Your task to perform on an android device: move a message to another label in the gmail app Image 0: 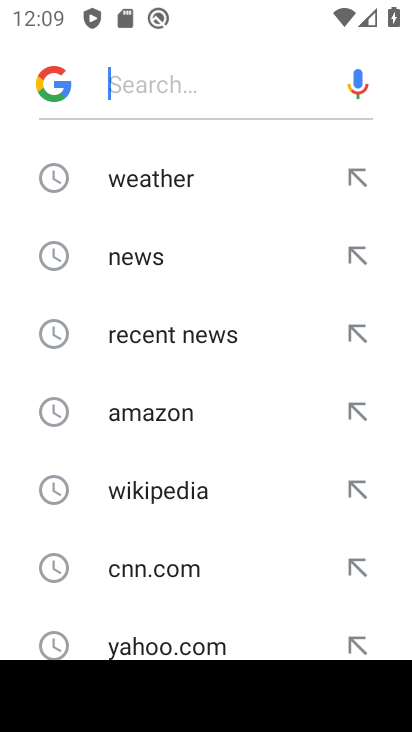
Step 0: press home button
Your task to perform on an android device: move a message to another label in the gmail app Image 1: 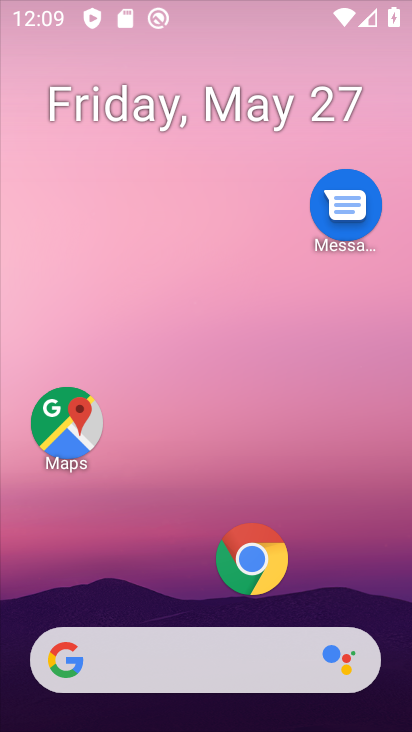
Step 1: drag from (49, 588) to (121, 38)
Your task to perform on an android device: move a message to another label in the gmail app Image 2: 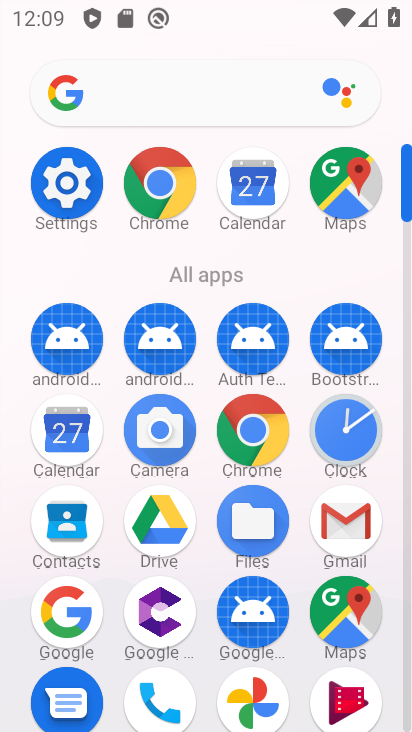
Step 2: click (348, 515)
Your task to perform on an android device: move a message to another label in the gmail app Image 3: 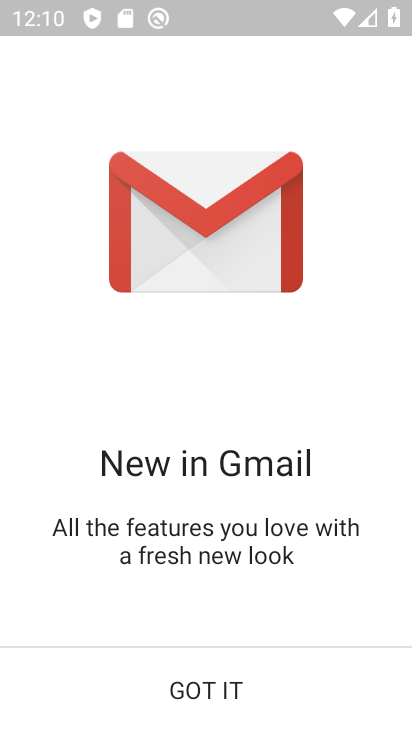
Step 3: click (247, 702)
Your task to perform on an android device: move a message to another label in the gmail app Image 4: 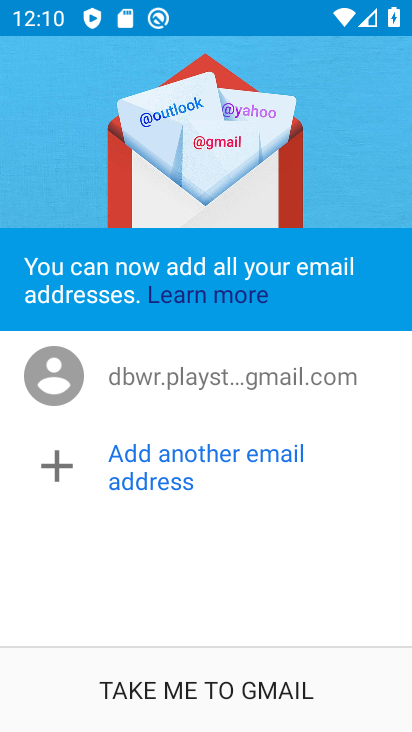
Step 4: click (190, 675)
Your task to perform on an android device: move a message to another label in the gmail app Image 5: 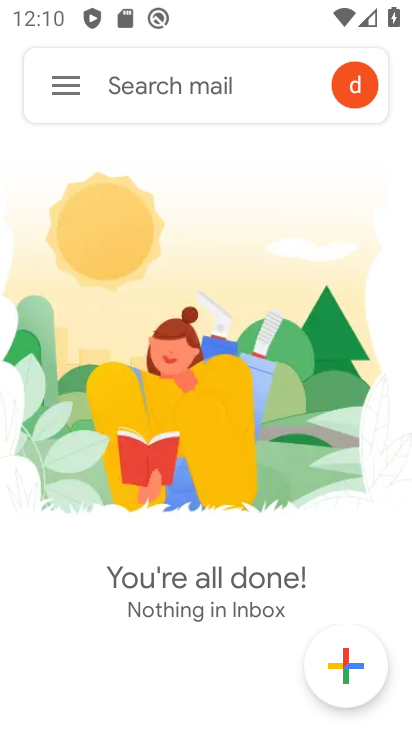
Step 5: click (62, 93)
Your task to perform on an android device: move a message to another label in the gmail app Image 6: 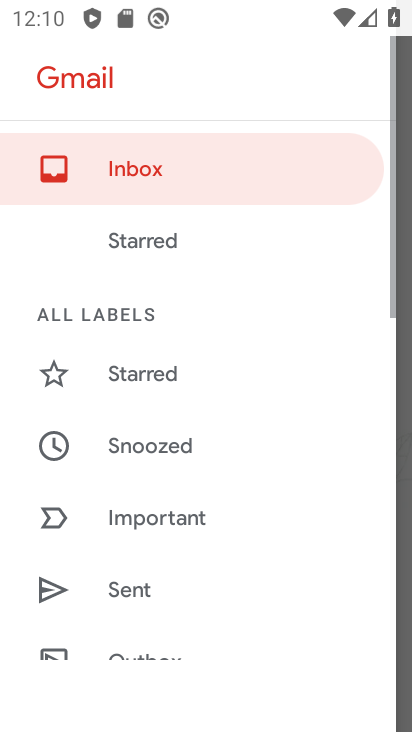
Step 6: drag from (154, 532) to (260, 97)
Your task to perform on an android device: move a message to another label in the gmail app Image 7: 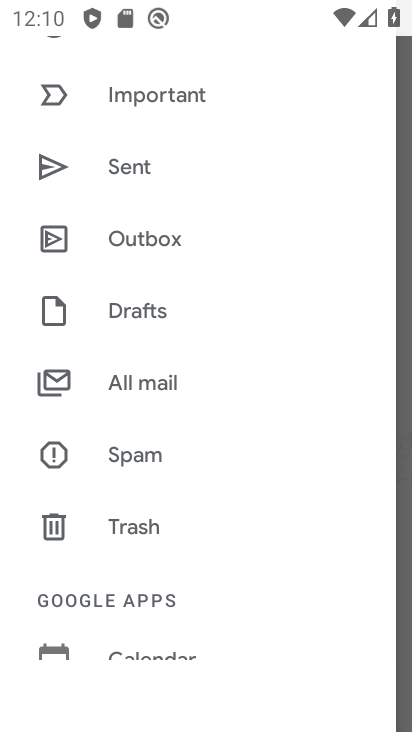
Step 7: click (160, 372)
Your task to perform on an android device: move a message to another label in the gmail app Image 8: 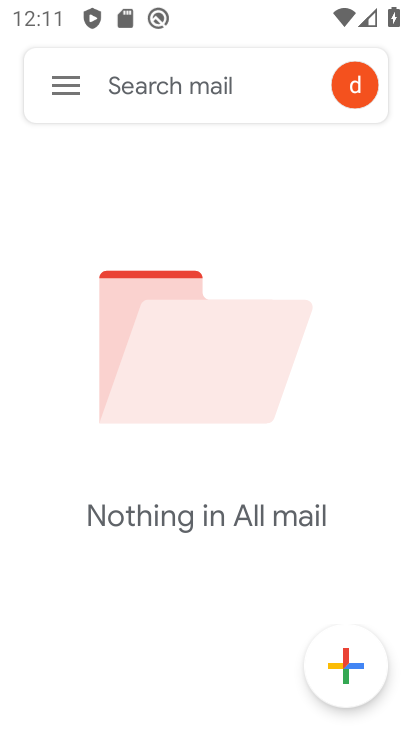
Step 8: task complete